Your task to perform on an android device: set default search engine in the chrome app Image 0: 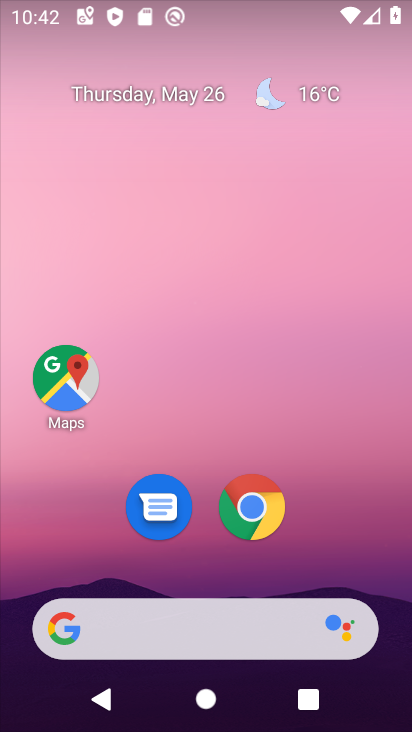
Step 0: drag from (229, 588) to (229, 198)
Your task to perform on an android device: set default search engine in the chrome app Image 1: 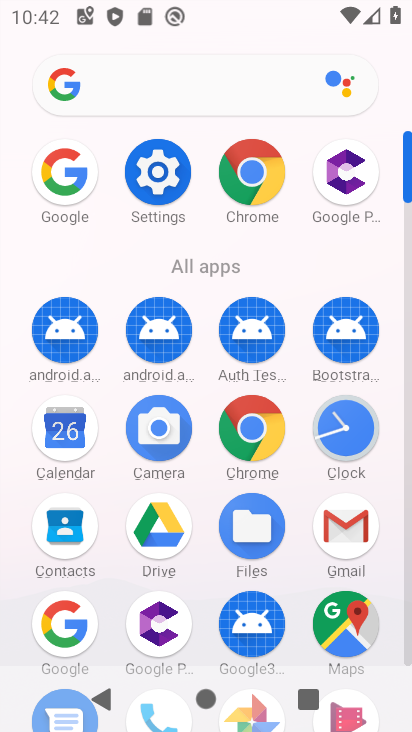
Step 1: click (255, 175)
Your task to perform on an android device: set default search engine in the chrome app Image 2: 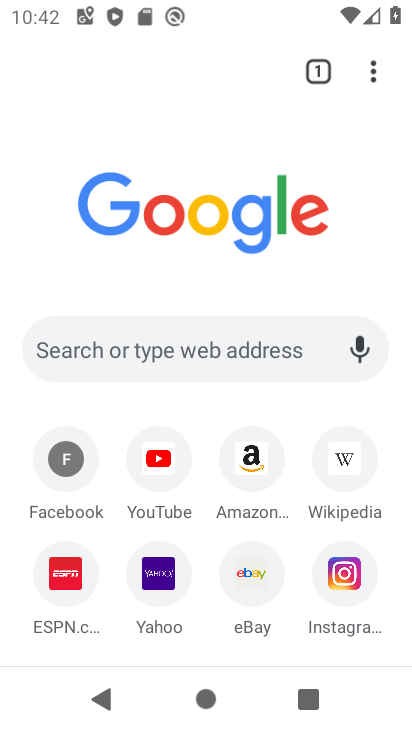
Step 2: click (376, 71)
Your task to perform on an android device: set default search engine in the chrome app Image 3: 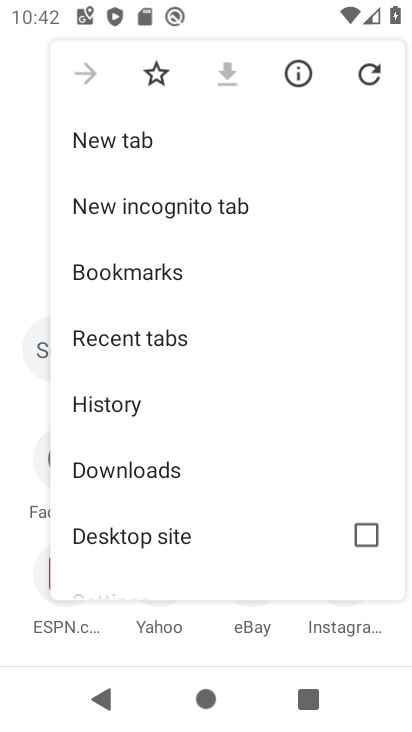
Step 3: drag from (144, 553) to (152, 187)
Your task to perform on an android device: set default search engine in the chrome app Image 4: 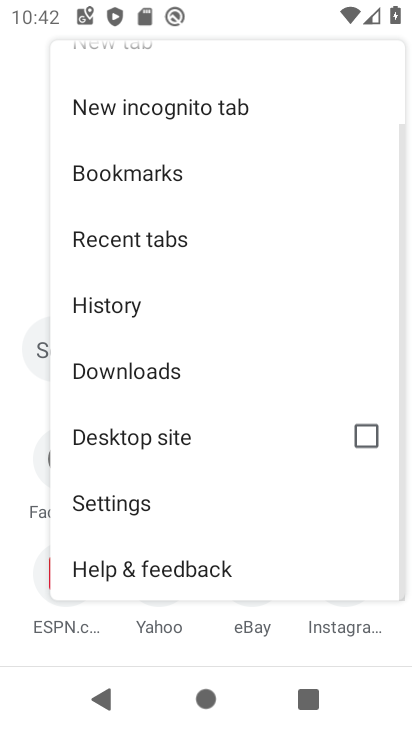
Step 4: click (133, 495)
Your task to perform on an android device: set default search engine in the chrome app Image 5: 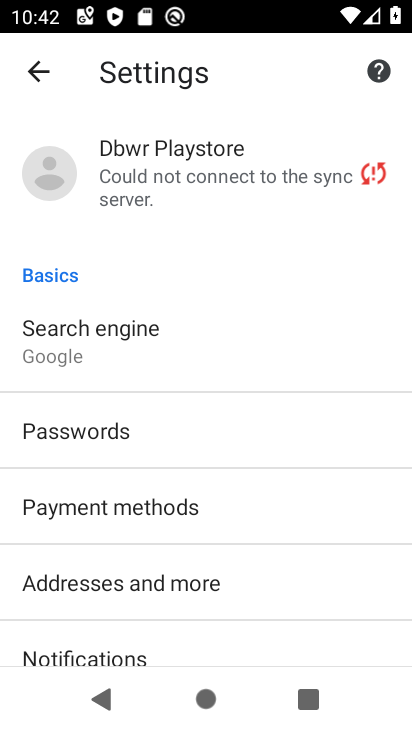
Step 5: click (108, 357)
Your task to perform on an android device: set default search engine in the chrome app Image 6: 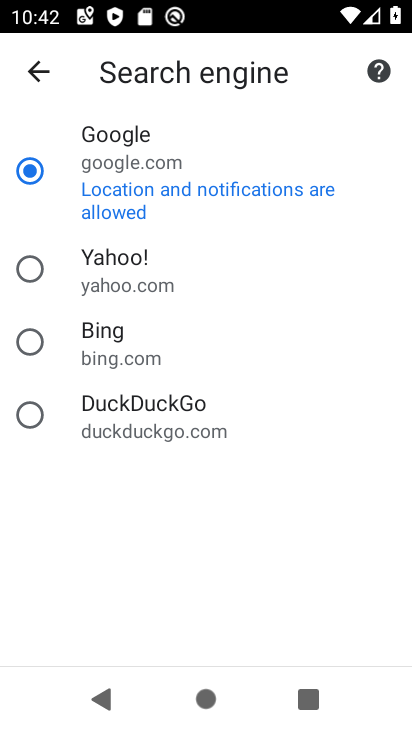
Step 6: task complete